Your task to perform on an android device: What is the news today? Image 0: 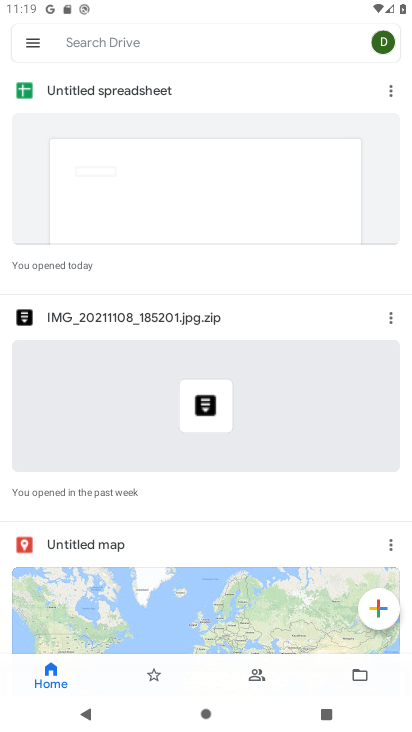
Step 0: press home button
Your task to perform on an android device: What is the news today? Image 1: 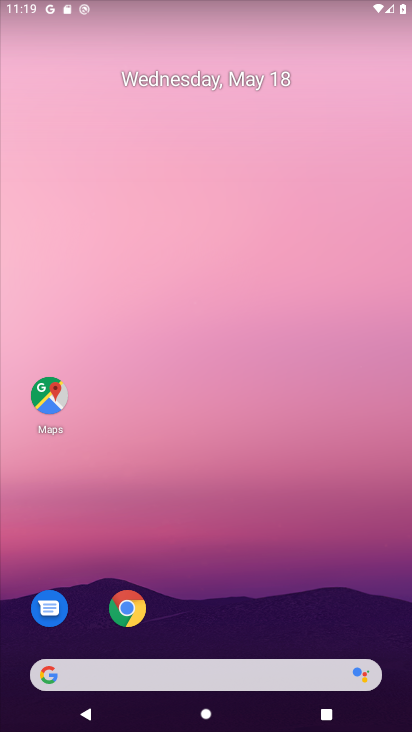
Step 1: click (136, 612)
Your task to perform on an android device: What is the news today? Image 2: 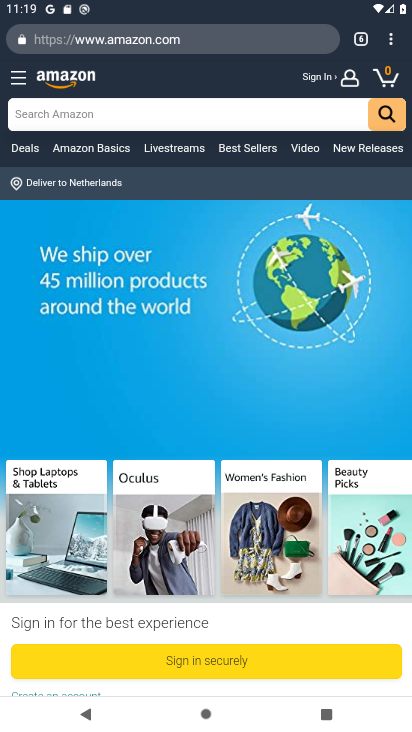
Step 2: click (359, 40)
Your task to perform on an android device: What is the news today? Image 3: 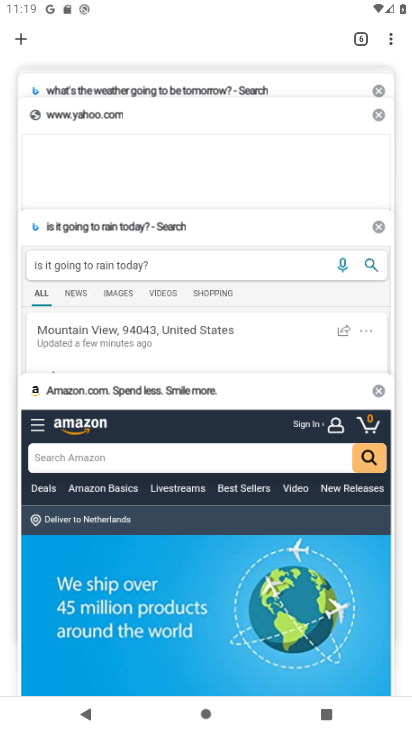
Step 3: click (22, 32)
Your task to perform on an android device: What is the news today? Image 4: 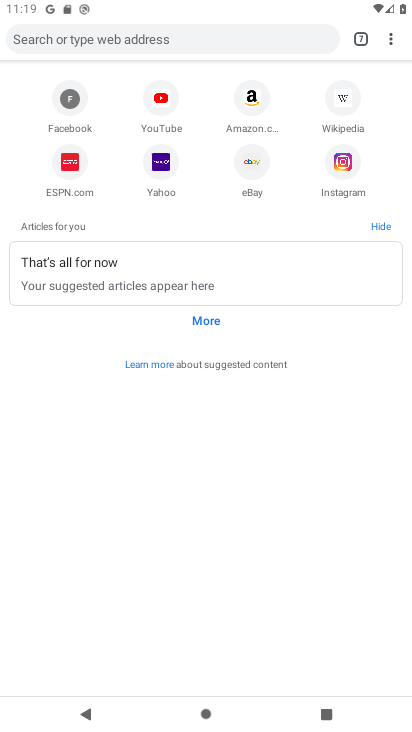
Step 4: click (148, 40)
Your task to perform on an android device: What is the news today? Image 5: 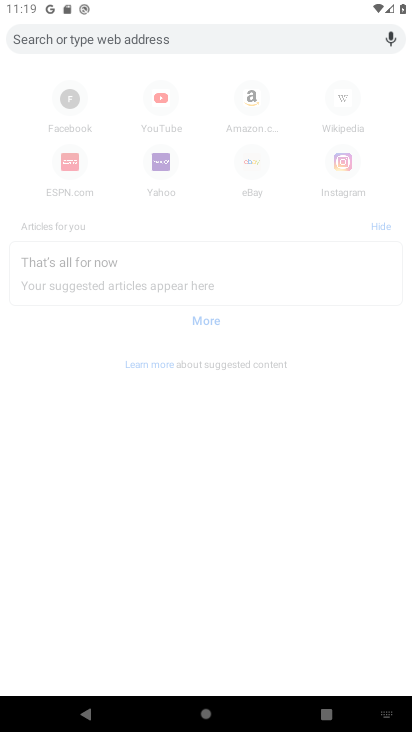
Step 5: type "what is the news today?"
Your task to perform on an android device: What is the news today? Image 6: 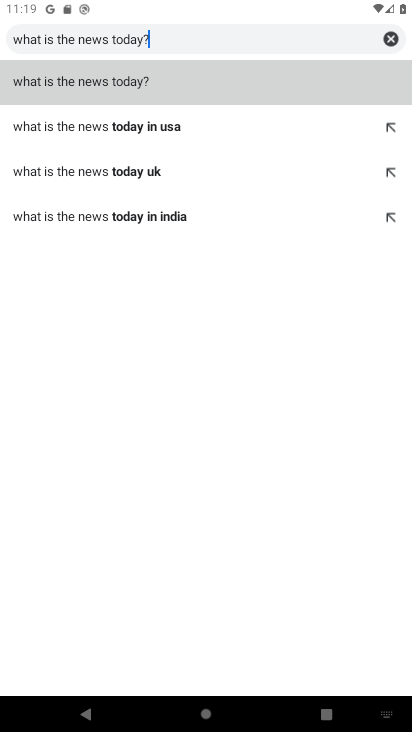
Step 6: click (162, 84)
Your task to perform on an android device: What is the news today? Image 7: 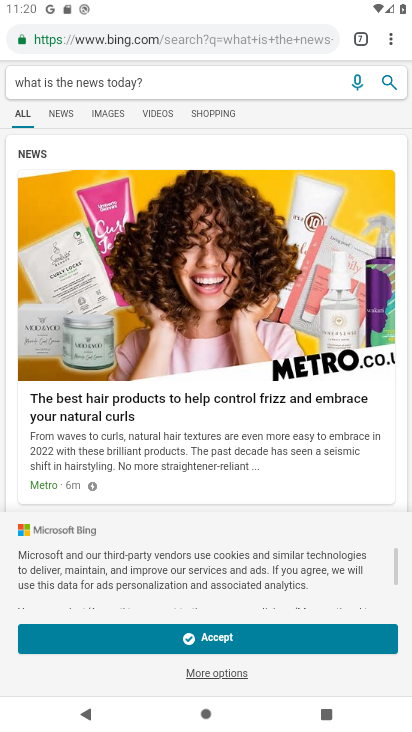
Step 7: drag from (217, 451) to (186, 474)
Your task to perform on an android device: What is the news today? Image 8: 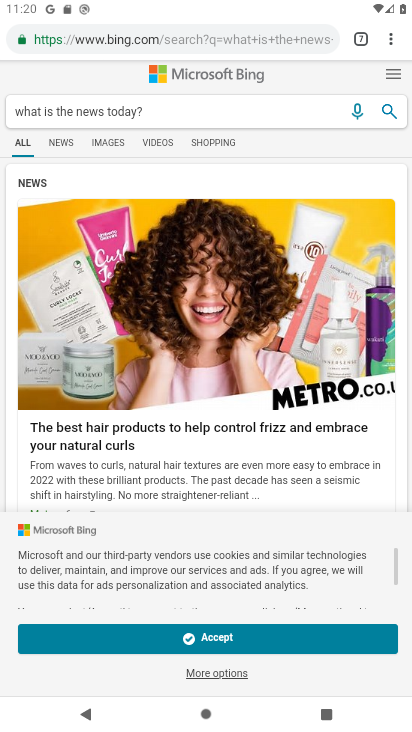
Step 8: click (54, 138)
Your task to perform on an android device: What is the news today? Image 9: 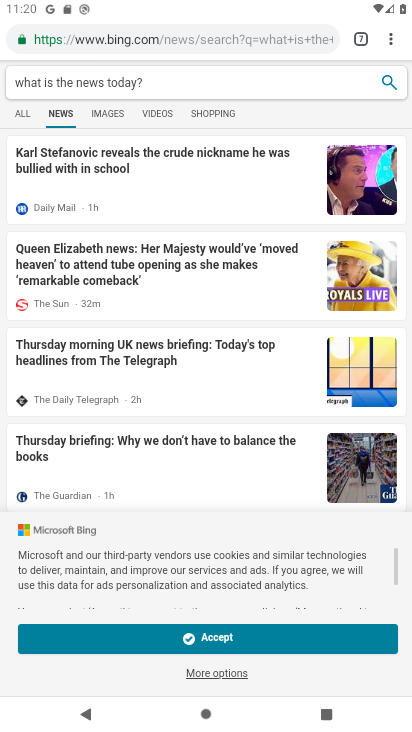
Step 9: task complete